Your task to perform on an android device: Open the stopwatch Image 0: 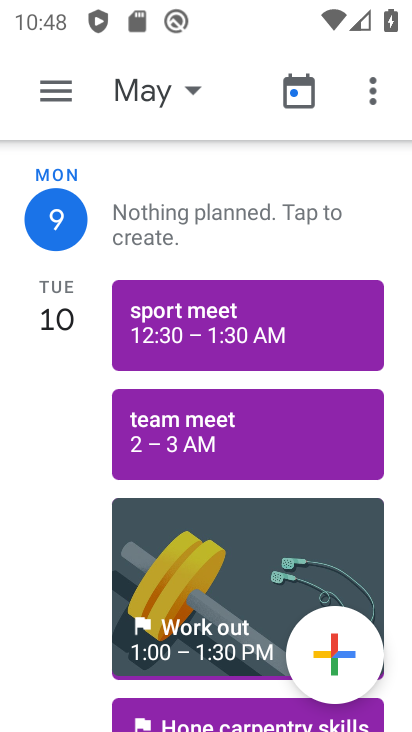
Step 0: press back button
Your task to perform on an android device: Open the stopwatch Image 1: 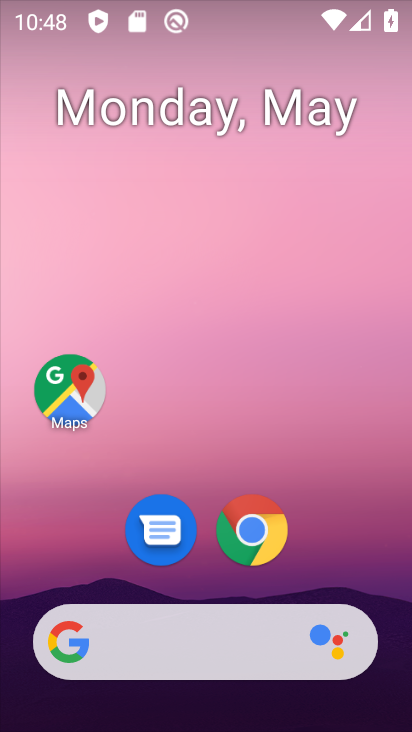
Step 1: drag from (313, 547) to (251, 21)
Your task to perform on an android device: Open the stopwatch Image 2: 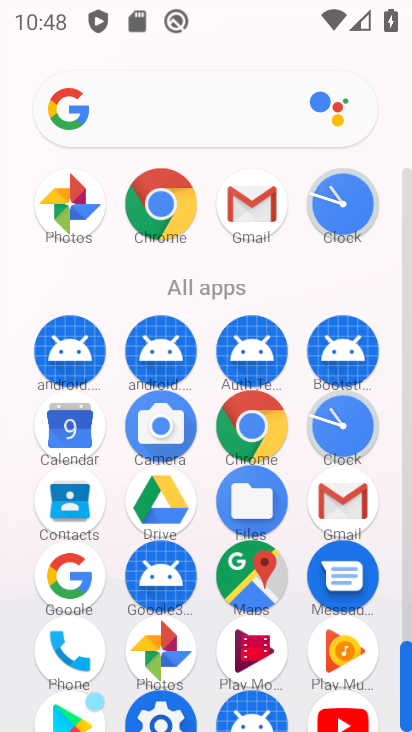
Step 2: drag from (20, 613) to (23, 208)
Your task to perform on an android device: Open the stopwatch Image 3: 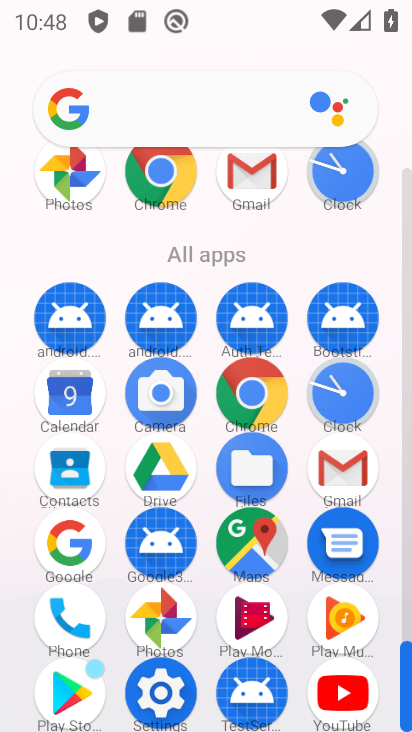
Step 3: drag from (1, 585) to (35, 239)
Your task to perform on an android device: Open the stopwatch Image 4: 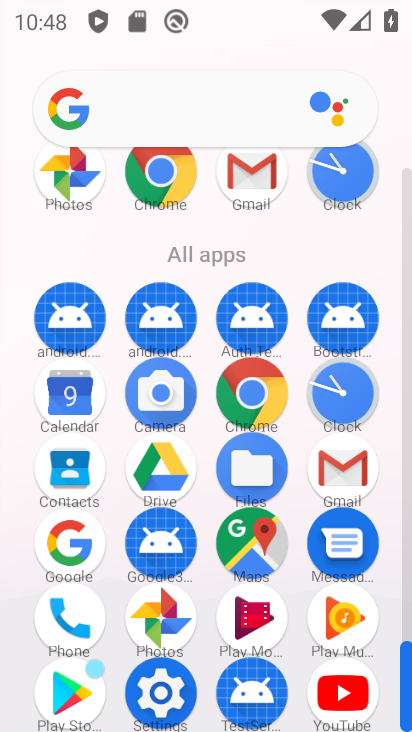
Step 4: drag from (12, 284) to (1, 478)
Your task to perform on an android device: Open the stopwatch Image 5: 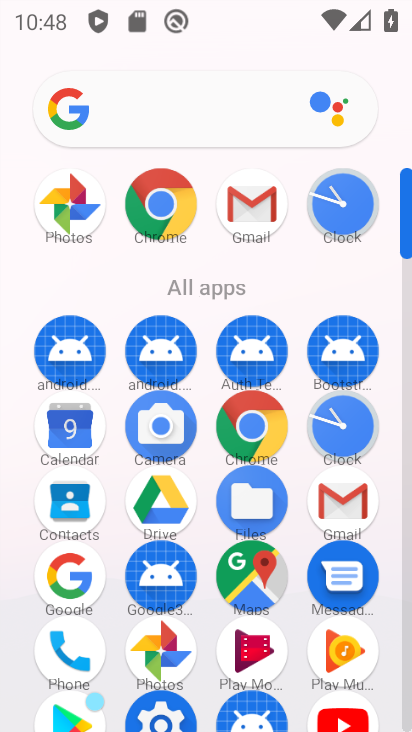
Step 5: click (340, 195)
Your task to perform on an android device: Open the stopwatch Image 6: 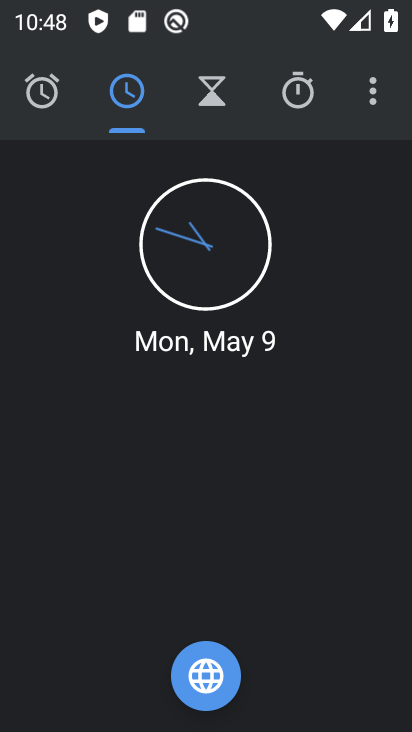
Step 6: click (293, 107)
Your task to perform on an android device: Open the stopwatch Image 7: 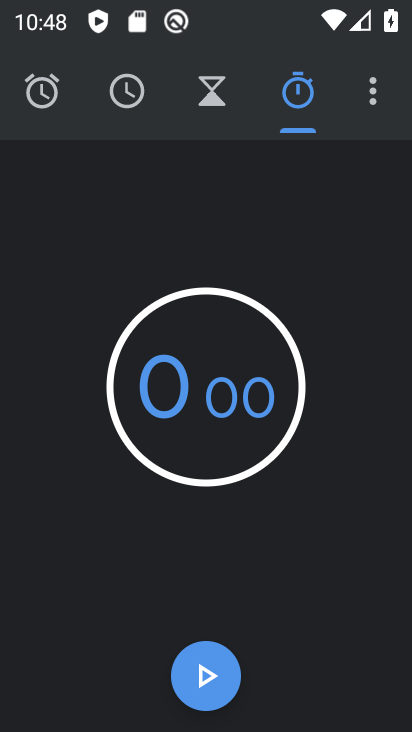
Step 7: task complete